Your task to perform on an android device: change your default location settings in chrome Image 0: 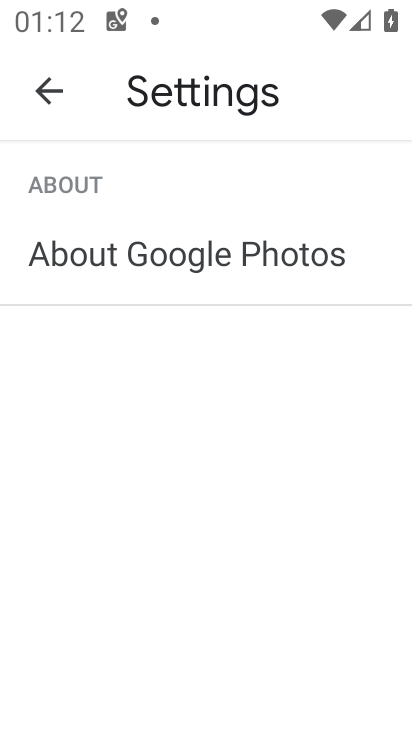
Step 0: press home button
Your task to perform on an android device: change your default location settings in chrome Image 1: 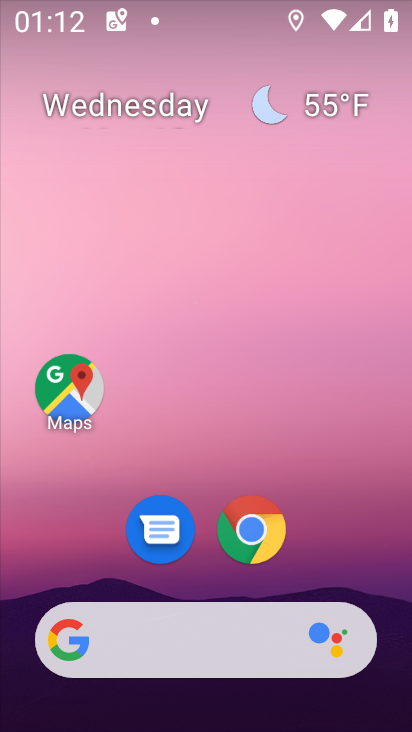
Step 1: click (251, 531)
Your task to perform on an android device: change your default location settings in chrome Image 2: 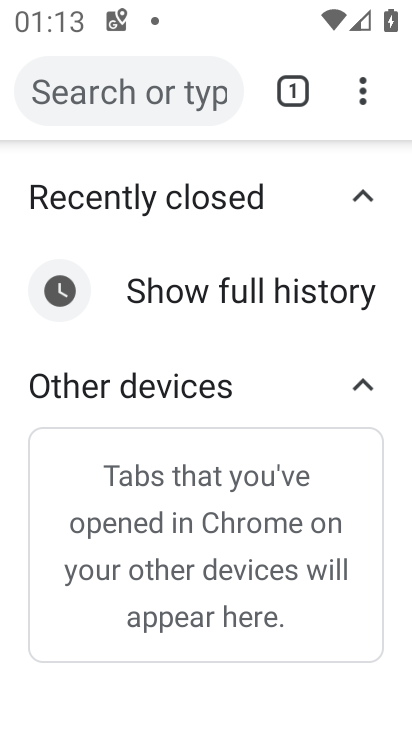
Step 2: click (361, 100)
Your task to perform on an android device: change your default location settings in chrome Image 3: 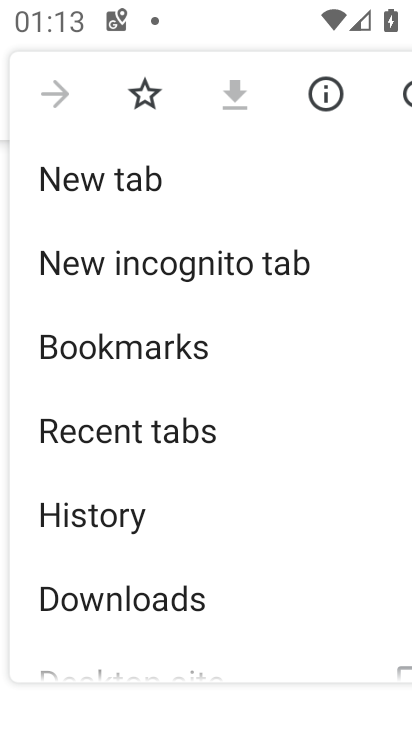
Step 3: drag from (148, 652) to (181, 309)
Your task to perform on an android device: change your default location settings in chrome Image 4: 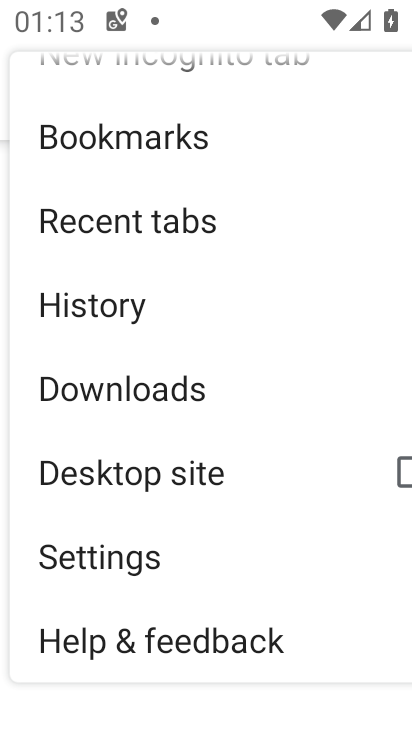
Step 4: click (92, 554)
Your task to perform on an android device: change your default location settings in chrome Image 5: 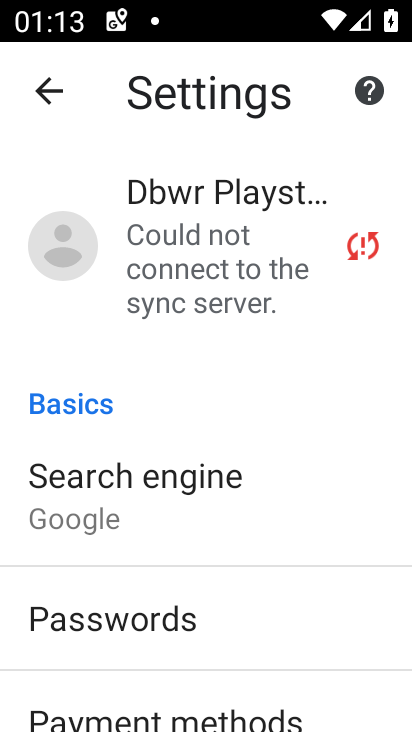
Step 5: drag from (260, 687) to (279, 188)
Your task to perform on an android device: change your default location settings in chrome Image 6: 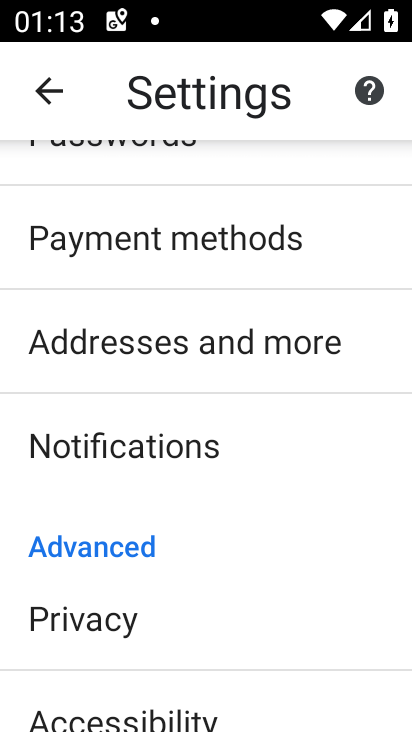
Step 6: drag from (139, 658) to (171, 267)
Your task to perform on an android device: change your default location settings in chrome Image 7: 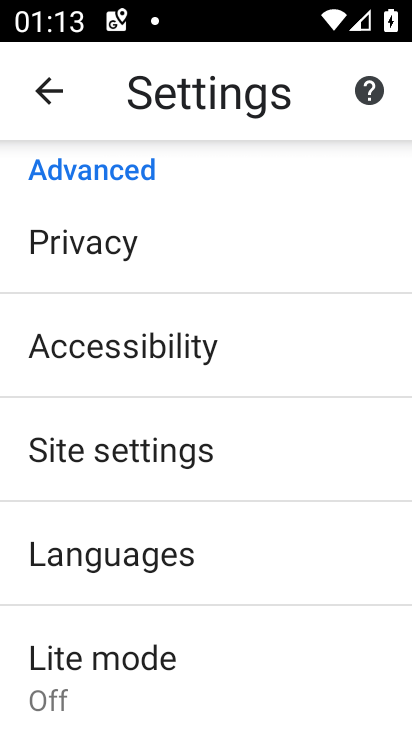
Step 7: click (148, 443)
Your task to perform on an android device: change your default location settings in chrome Image 8: 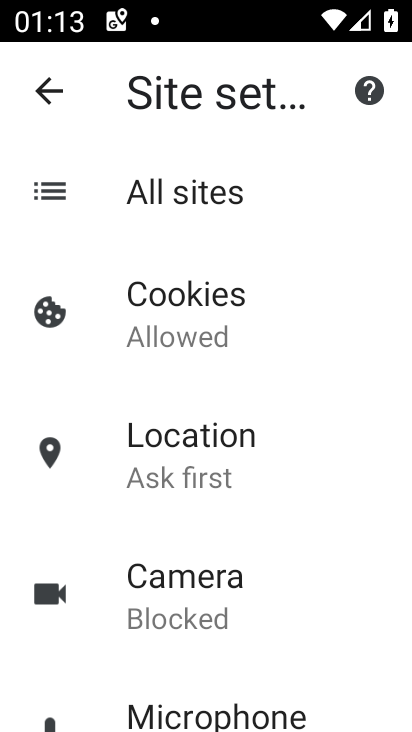
Step 8: click (180, 441)
Your task to perform on an android device: change your default location settings in chrome Image 9: 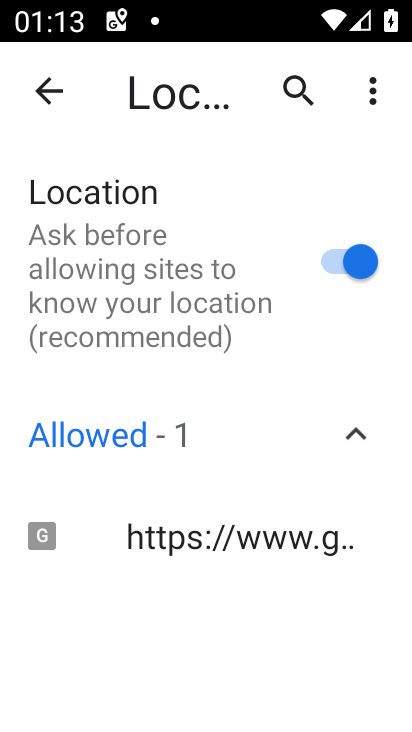
Step 9: click (340, 261)
Your task to perform on an android device: change your default location settings in chrome Image 10: 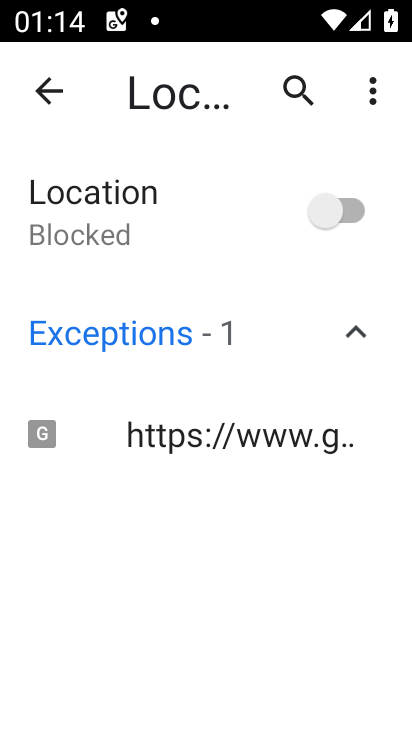
Step 10: task complete